Your task to perform on an android device: snooze an email in the gmail app Image 0: 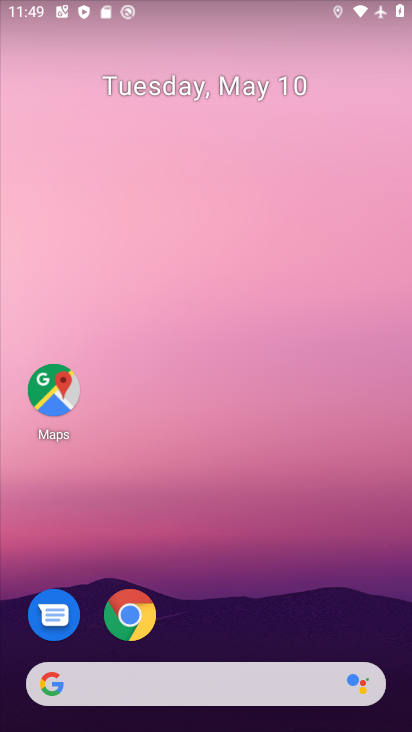
Step 0: drag from (238, 548) to (193, 13)
Your task to perform on an android device: snooze an email in the gmail app Image 1: 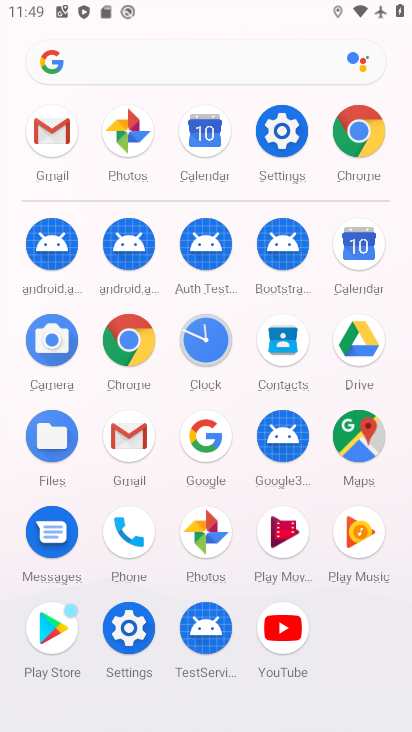
Step 1: drag from (9, 606) to (26, 277)
Your task to perform on an android device: snooze an email in the gmail app Image 2: 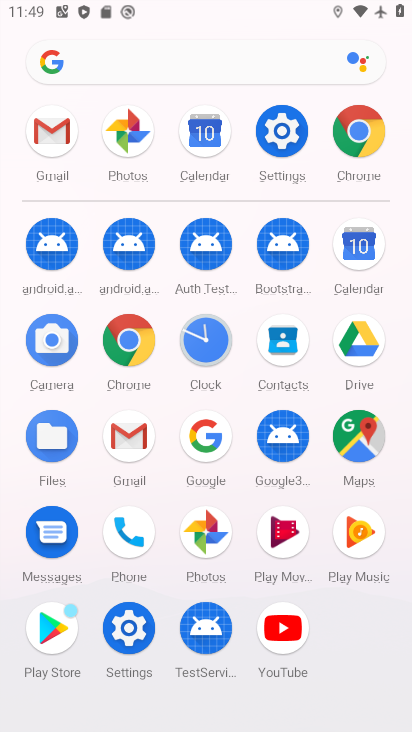
Step 2: click (128, 424)
Your task to perform on an android device: snooze an email in the gmail app Image 3: 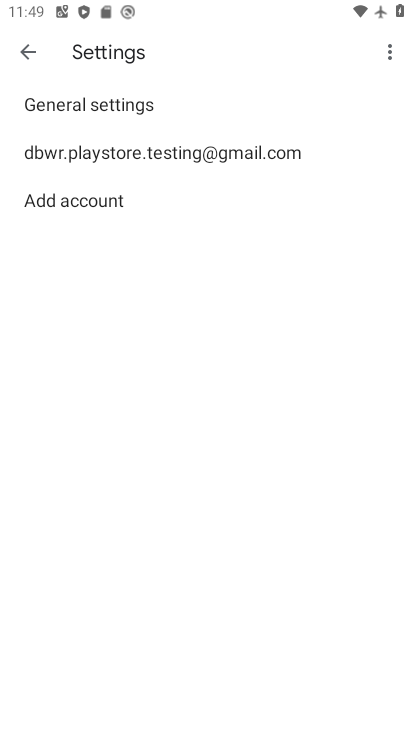
Step 3: click (141, 151)
Your task to perform on an android device: snooze an email in the gmail app Image 4: 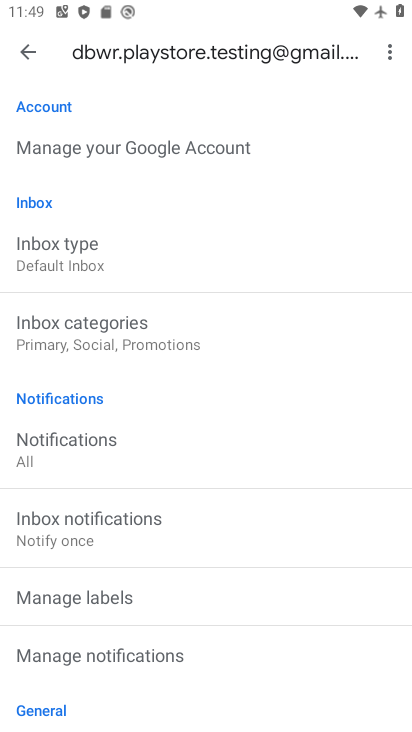
Step 4: drag from (252, 534) to (228, 203)
Your task to perform on an android device: snooze an email in the gmail app Image 5: 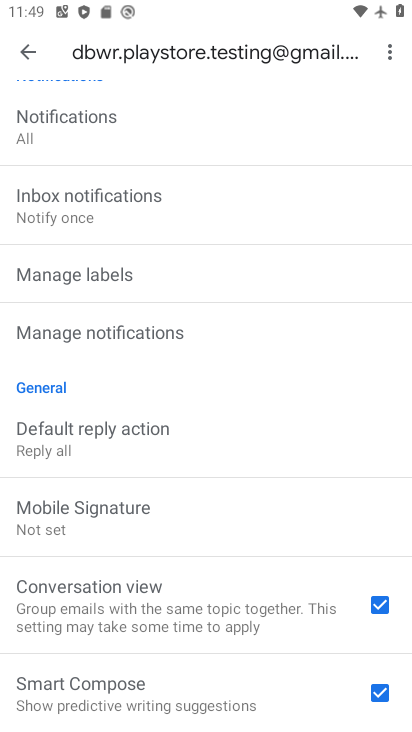
Step 5: drag from (191, 582) to (257, 151)
Your task to perform on an android device: snooze an email in the gmail app Image 6: 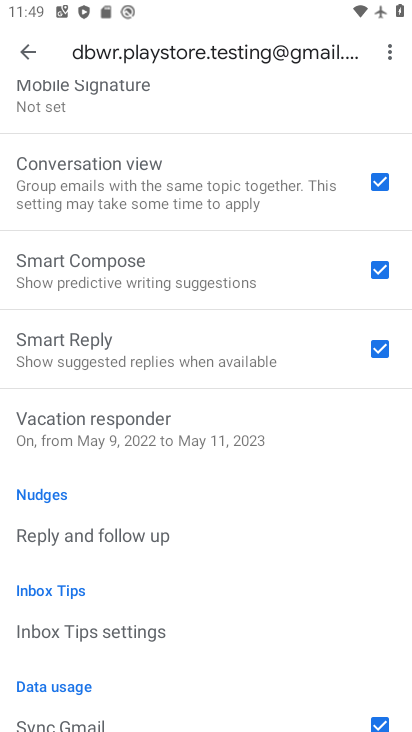
Step 6: drag from (219, 554) to (222, 119)
Your task to perform on an android device: snooze an email in the gmail app Image 7: 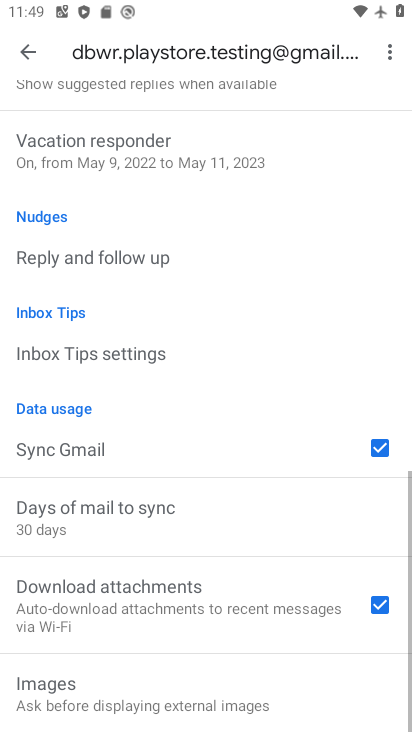
Step 7: drag from (208, 594) to (217, 157)
Your task to perform on an android device: snooze an email in the gmail app Image 8: 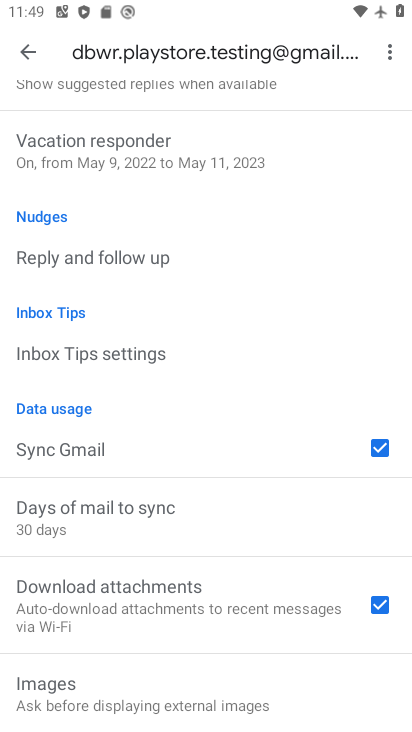
Step 8: drag from (222, 184) to (232, 674)
Your task to perform on an android device: snooze an email in the gmail app Image 9: 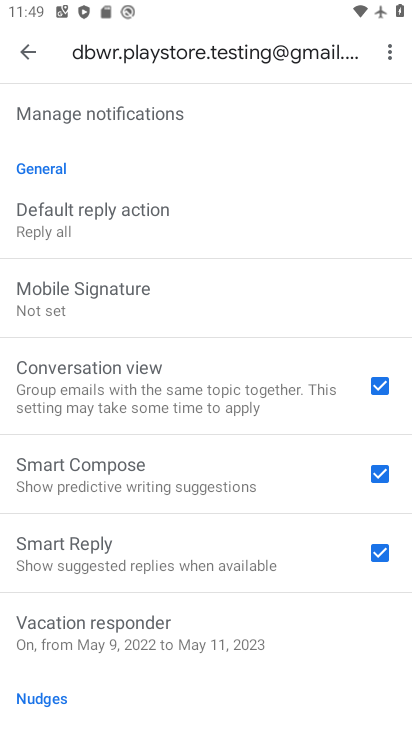
Step 9: drag from (204, 141) to (237, 515)
Your task to perform on an android device: snooze an email in the gmail app Image 10: 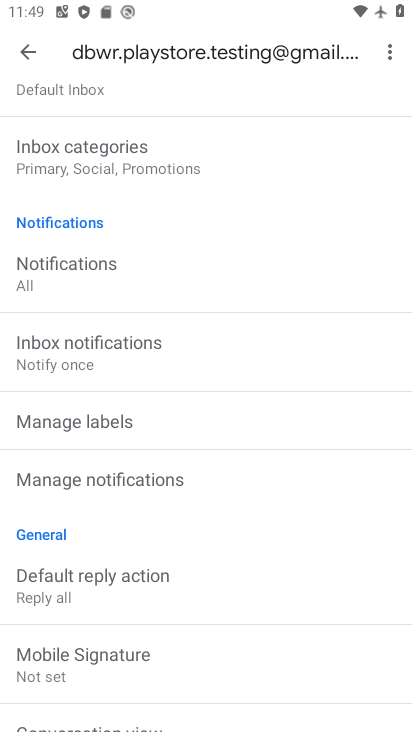
Step 10: drag from (204, 158) to (216, 533)
Your task to perform on an android device: snooze an email in the gmail app Image 11: 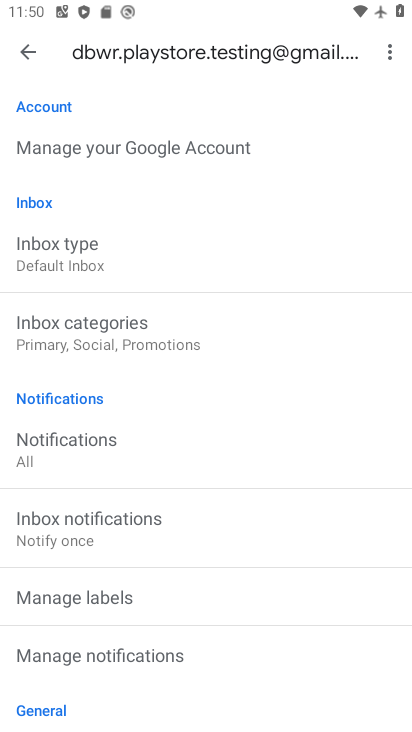
Step 11: drag from (207, 150) to (244, 551)
Your task to perform on an android device: snooze an email in the gmail app Image 12: 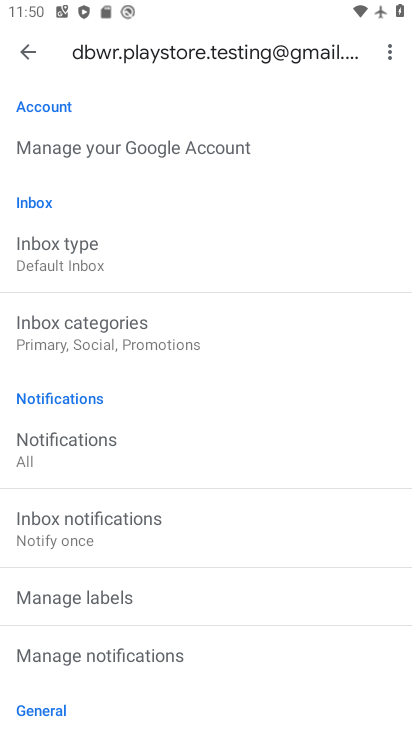
Step 12: click (31, 49)
Your task to perform on an android device: snooze an email in the gmail app Image 13: 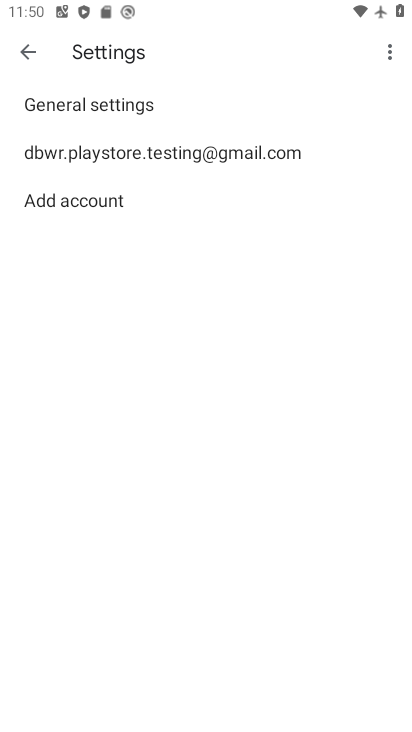
Step 13: click (23, 53)
Your task to perform on an android device: snooze an email in the gmail app Image 14: 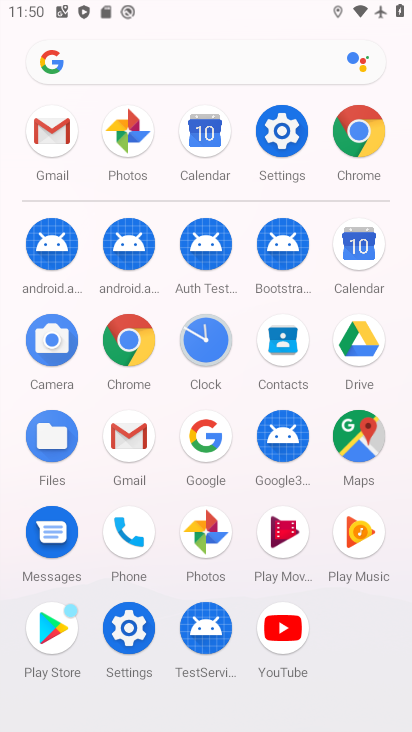
Step 14: click (126, 429)
Your task to perform on an android device: snooze an email in the gmail app Image 15: 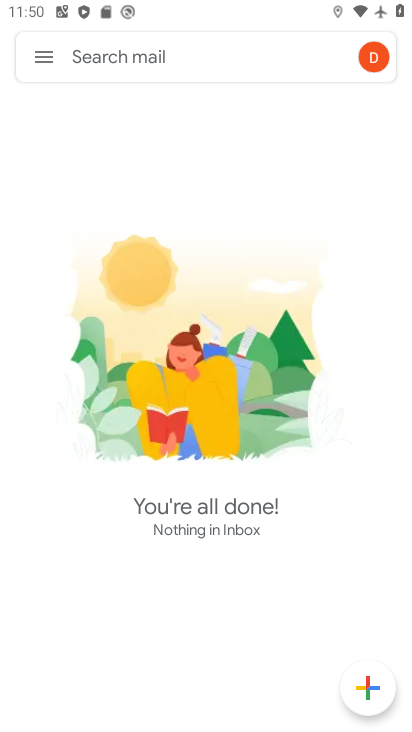
Step 15: click (46, 50)
Your task to perform on an android device: snooze an email in the gmail app Image 16: 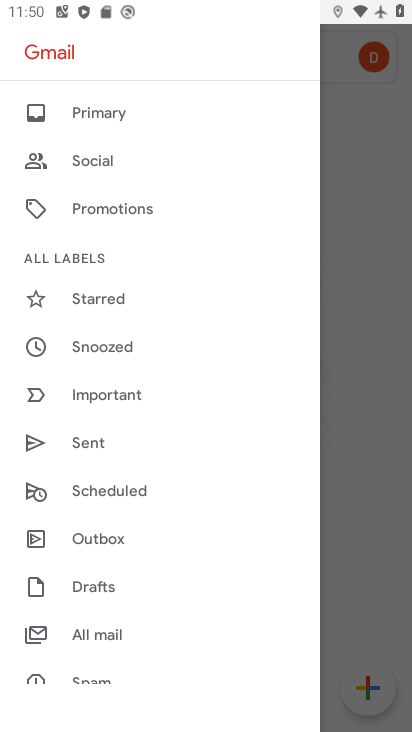
Step 16: click (119, 637)
Your task to perform on an android device: snooze an email in the gmail app Image 17: 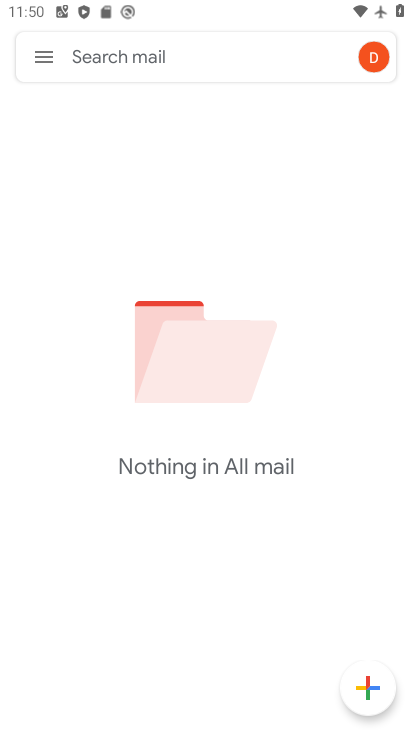
Step 17: task complete